Your task to perform on an android device: Open Reddit.com Image 0: 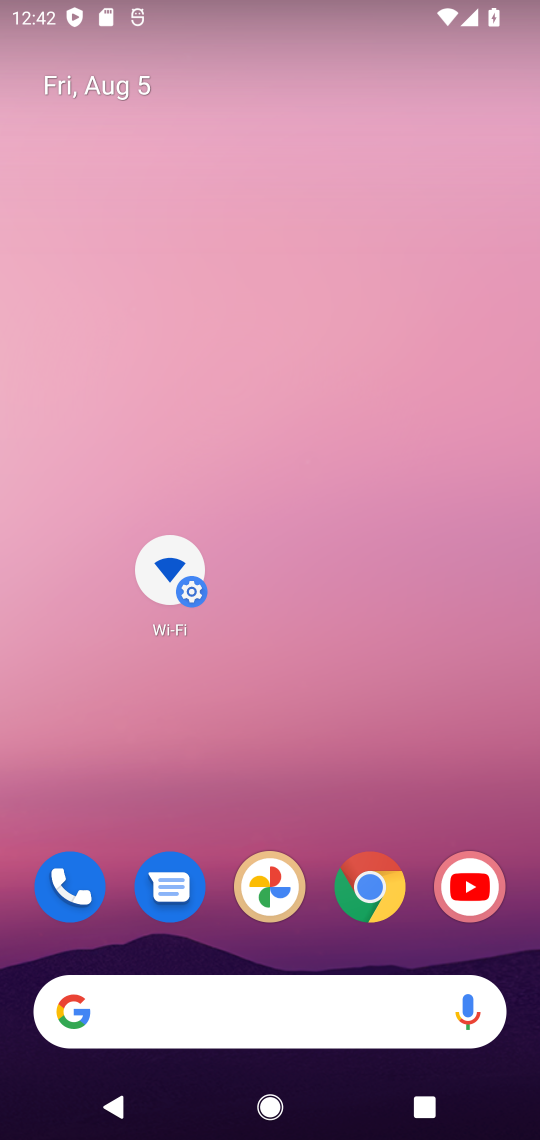
Step 0: click (372, 899)
Your task to perform on an android device: Open Reddit.com Image 1: 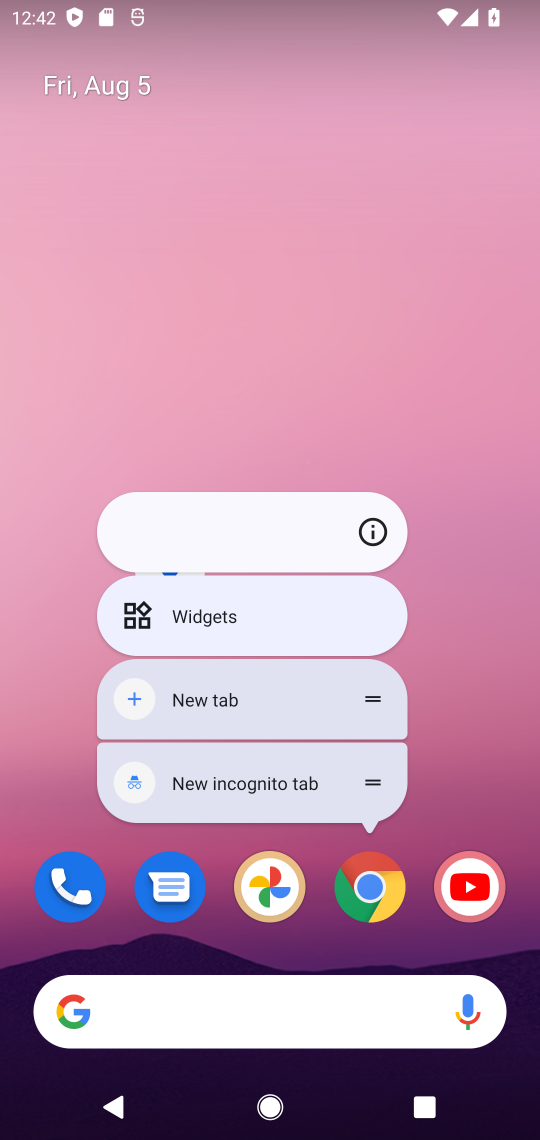
Step 1: click (364, 884)
Your task to perform on an android device: Open Reddit.com Image 2: 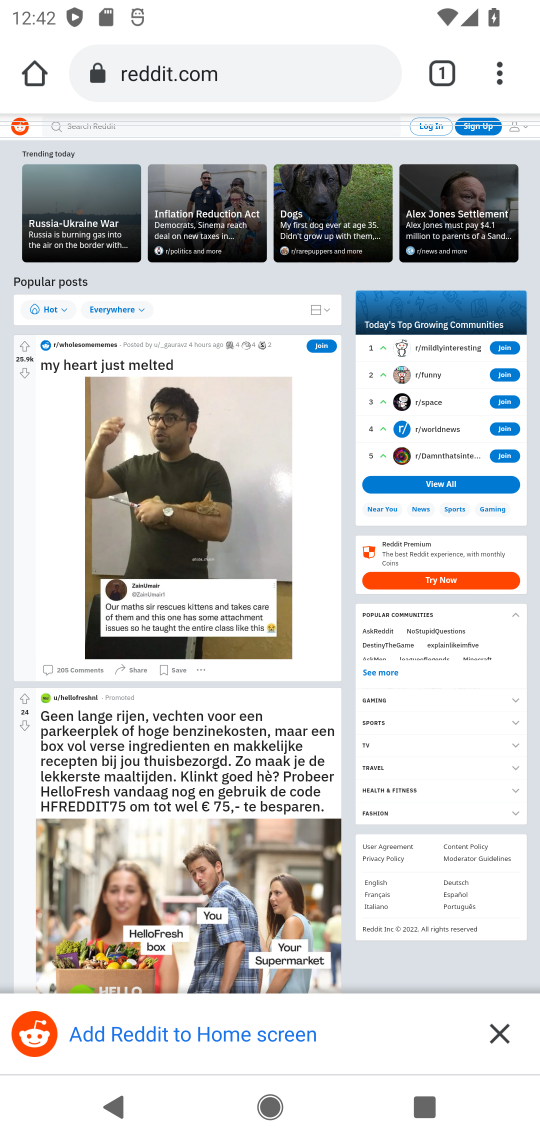
Step 2: click (278, 70)
Your task to perform on an android device: Open Reddit.com Image 3: 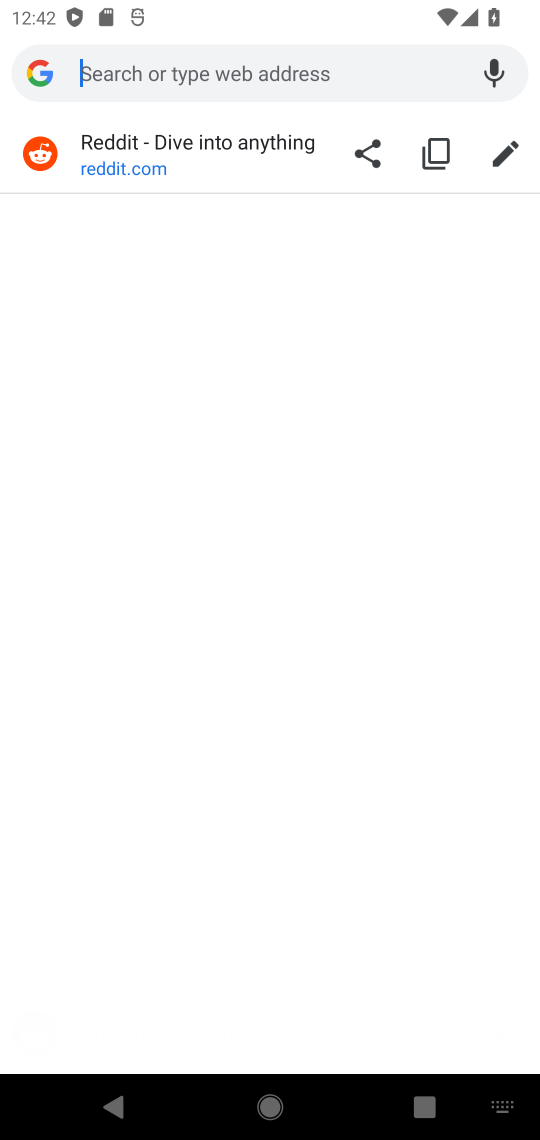
Step 3: click (252, 122)
Your task to perform on an android device: Open Reddit.com Image 4: 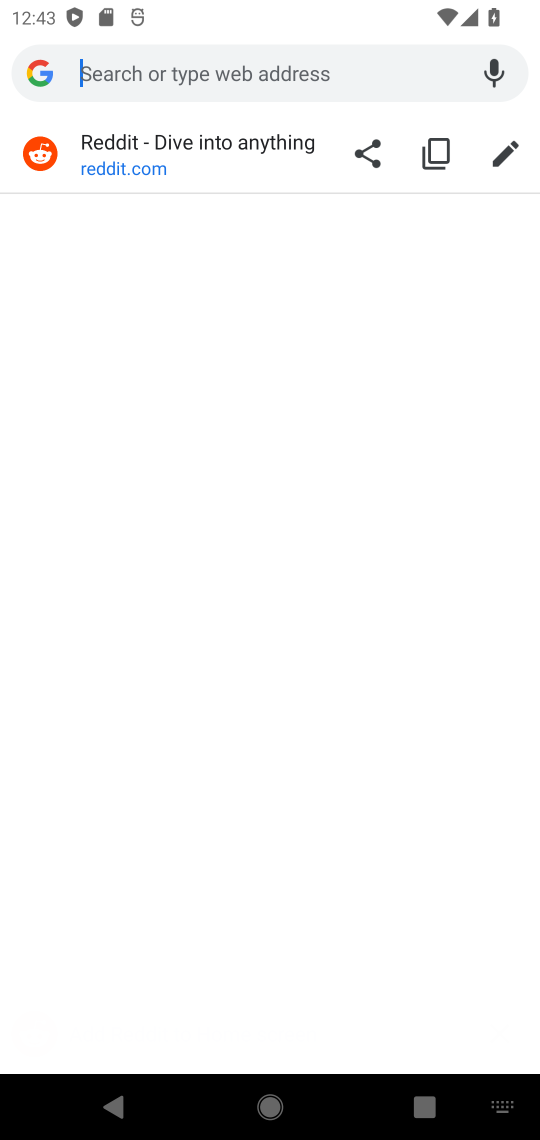
Step 4: click (133, 132)
Your task to perform on an android device: Open Reddit.com Image 5: 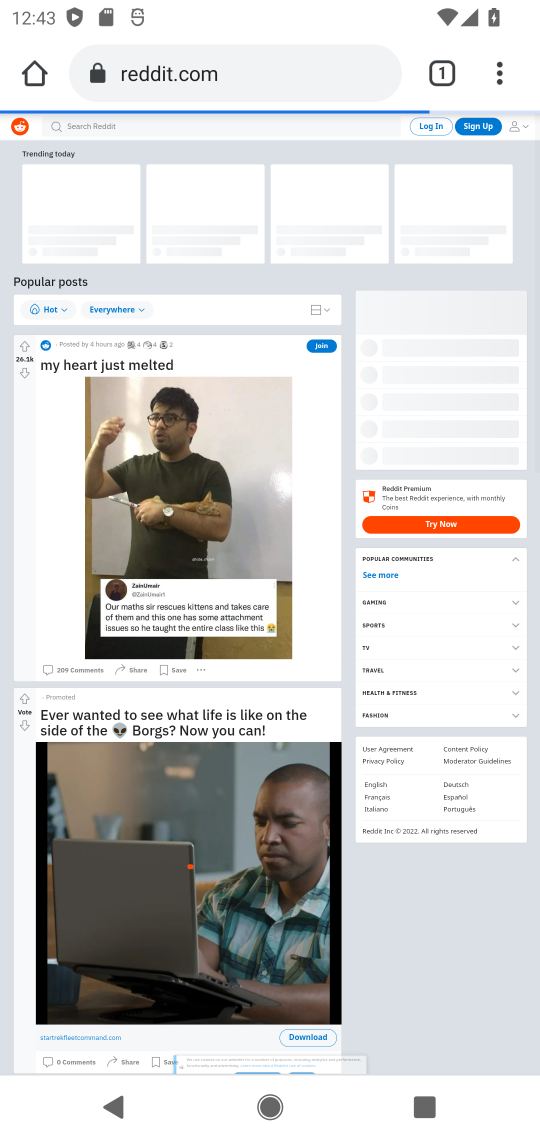
Step 5: task complete